Your task to perform on an android device: Go to settings Image 0: 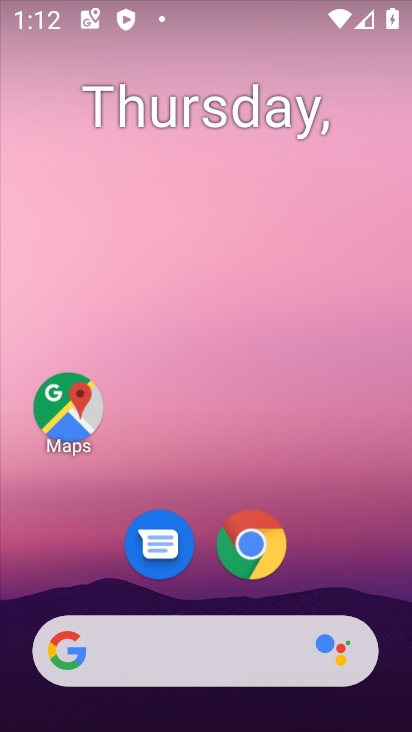
Step 0: drag from (202, 683) to (225, 0)
Your task to perform on an android device: Go to settings Image 1: 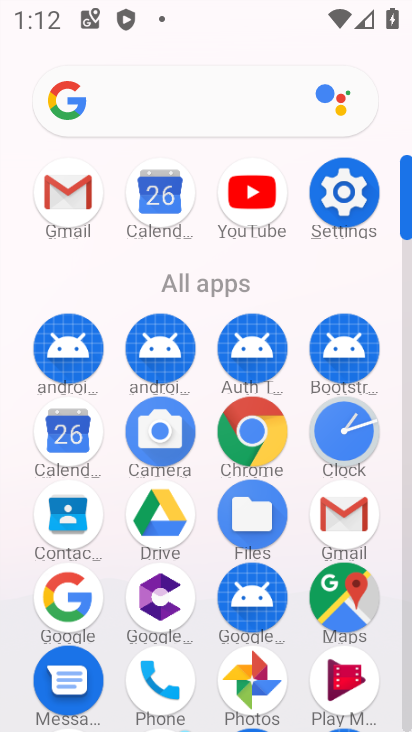
Step 1: click (345, 189)
Your task to perform on an android device: Go to settings Image 2: 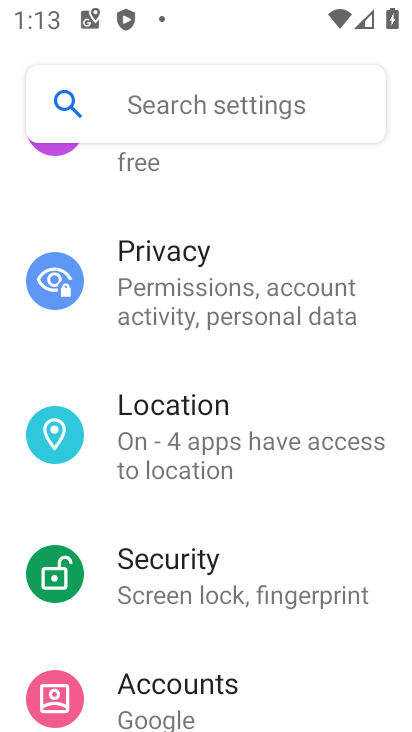
Step 2: task complete